Your task to perform on an android device: Open display settings Image 0: 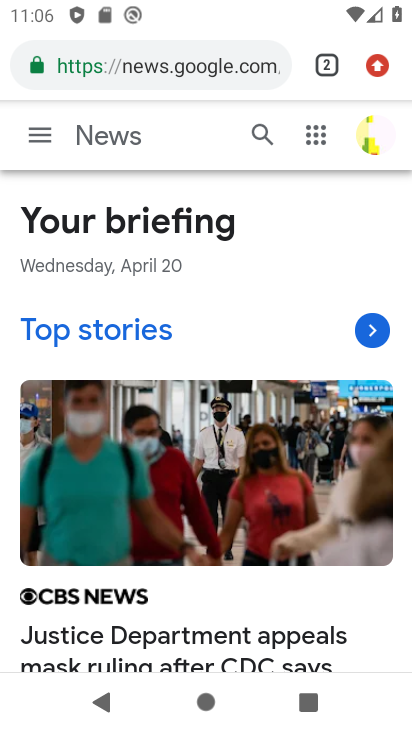
Step 0: press home button
Your task to perform on an android device: Open display settings Image 1: 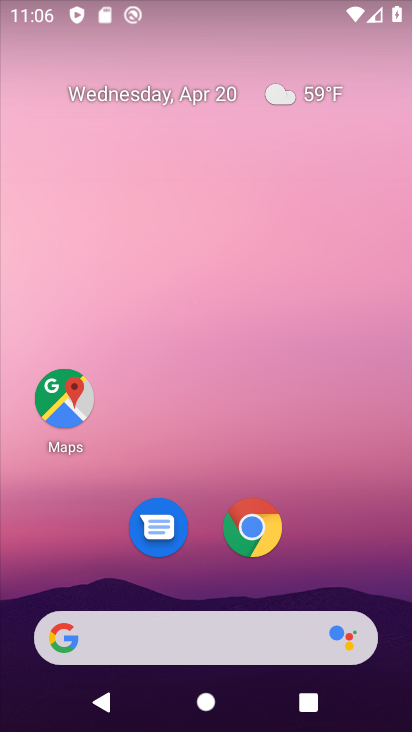
Step 1: drag from (376, 528) to (381, 160)
Your task to perform on an android device: Open display settings Image 2: 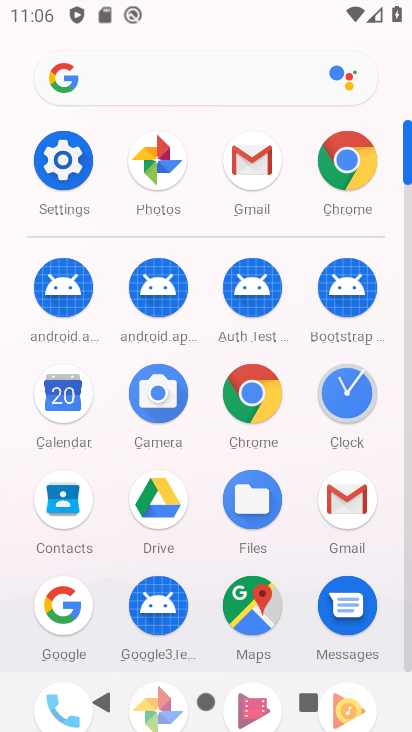
Step 2: click (74, 177)
Your task to perform on an android device: Open display settings Image 3: 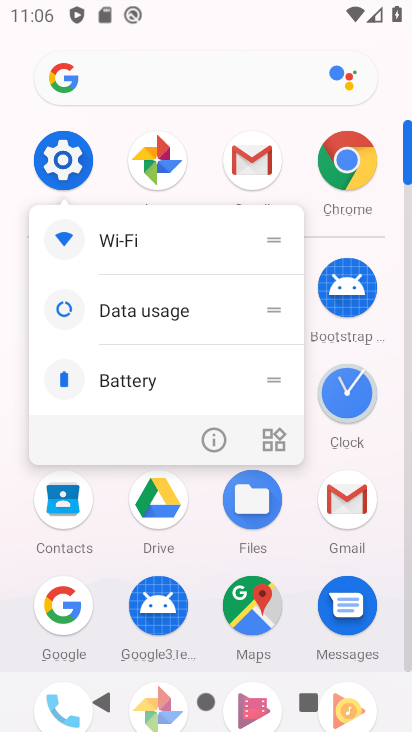
Step 3: click (77, 167)
Your task to perform on an android device: Open display settings Image 4: 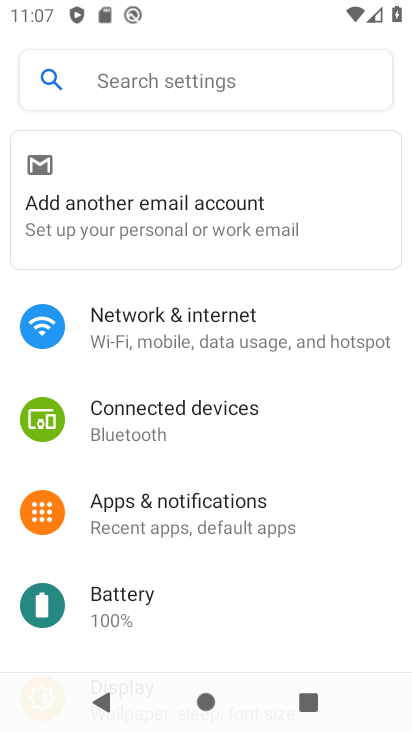
Step 4: drag from (291, 602) to (360, 238)
Your task to perform on an android device: Open display settings Image 5: 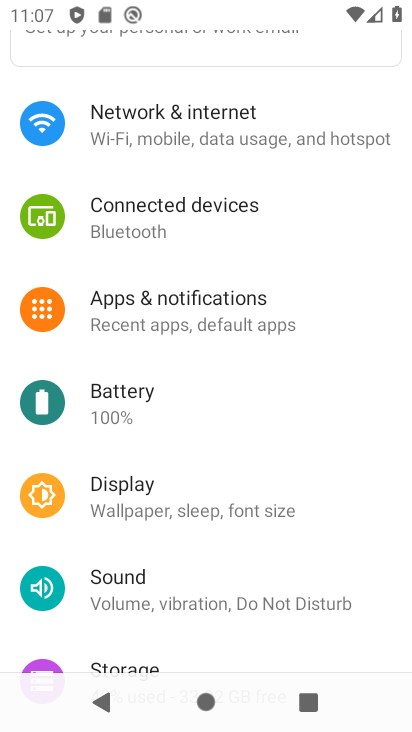
Step 5: click (207, 510)
Your task to perform on an android device: Open display settings Image 6: 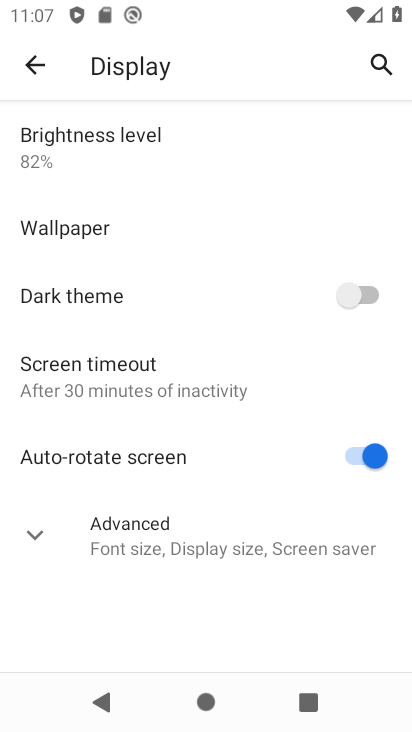
Step 6: task complete